Your task to perform on an android device: Go to privacy settings Image 0: 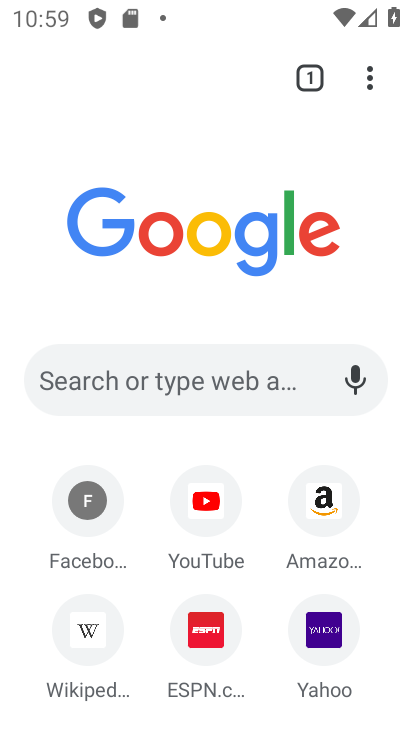
Step 0: click (374, 76)
Your task to perform on an android device: Go to privacy settings Image 1: 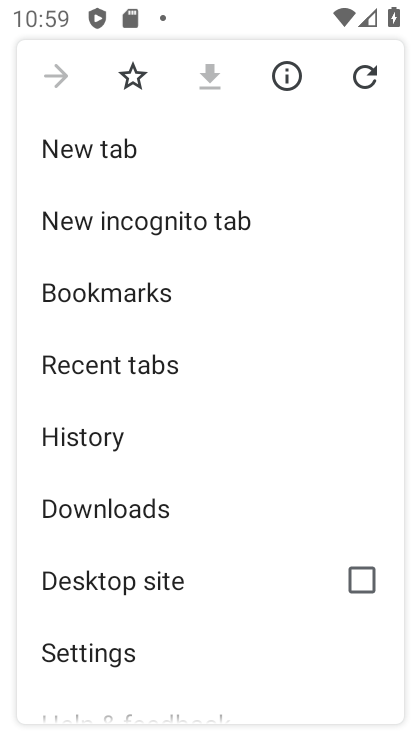
Step 1: click (162, 656)
Your task to perform on an android device: Go to privacy settings Image 2: 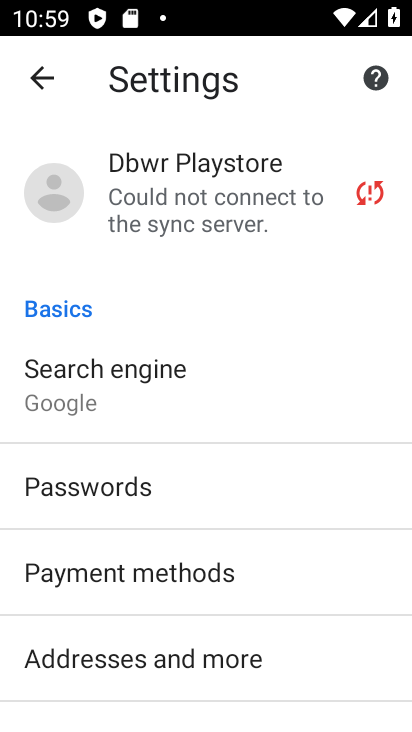
Step 2: drag from (197, 709) to (152, 341)
Your task to perform on an android device: Go to privacy settings Image 3: 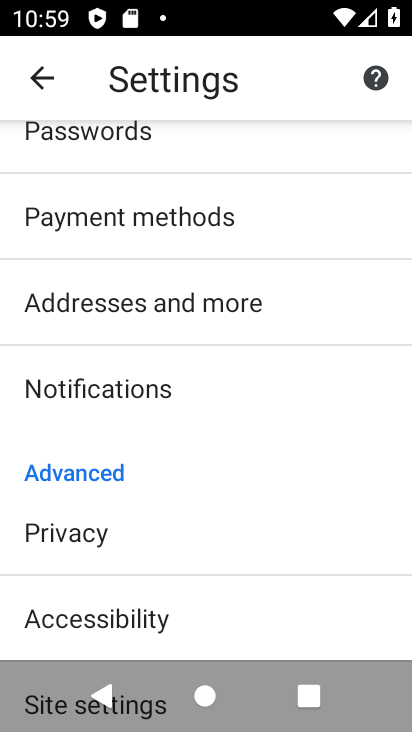
Step 3: click (149, 536)
Your task to perform on an android device: Go to privacy settings Image 4: 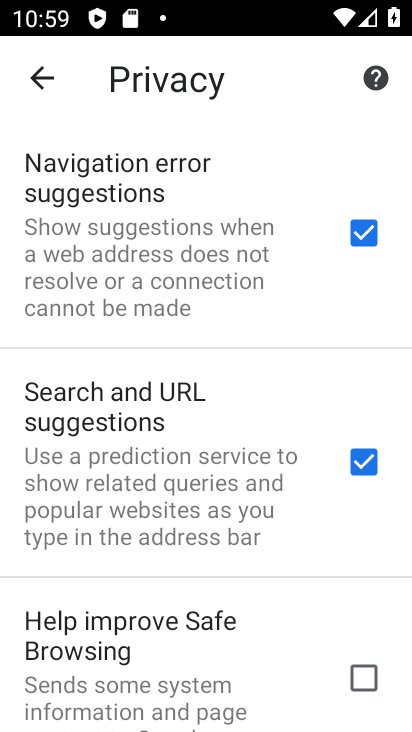
Step 4: task complete